Your task to perform on an android device: refresh tabs in the chrome app Image 0: 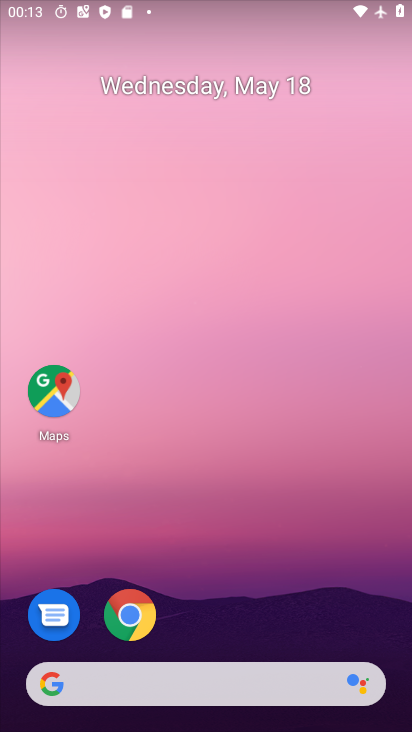
Step 0: click (137, 618)
Your task to perform on an android device: refresh tabs in the chrome app Image 1: 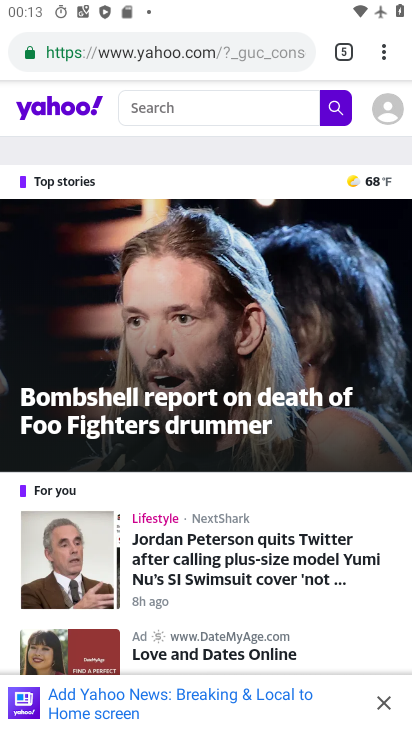
Step 1: click (383, 56)
Your task to perform on an android device: refresh tabs in the chrome app Image 2: 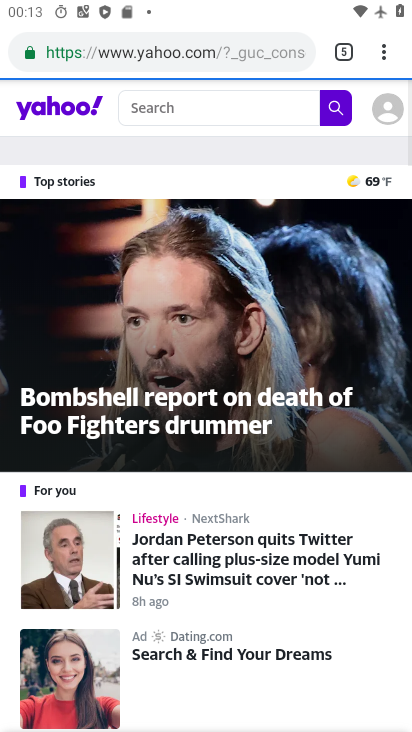
Step 2: click (383, 56)
Your task to perform on an android device: refresh tabs in the chrome app Image 3: 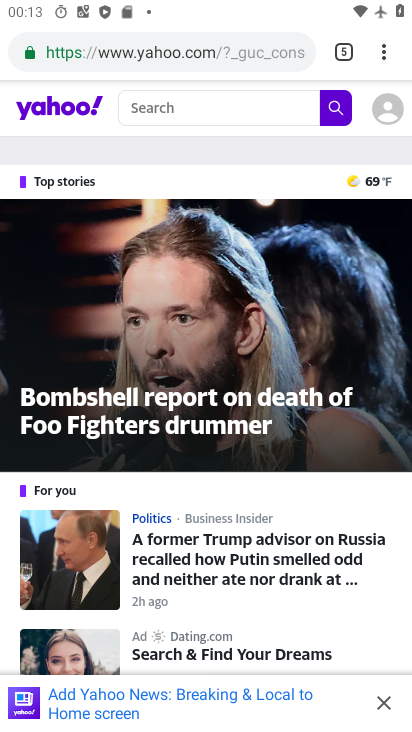
Step 3: task complete